Your task to perform on an android device: turn pop-ups off in chrome Image 0: 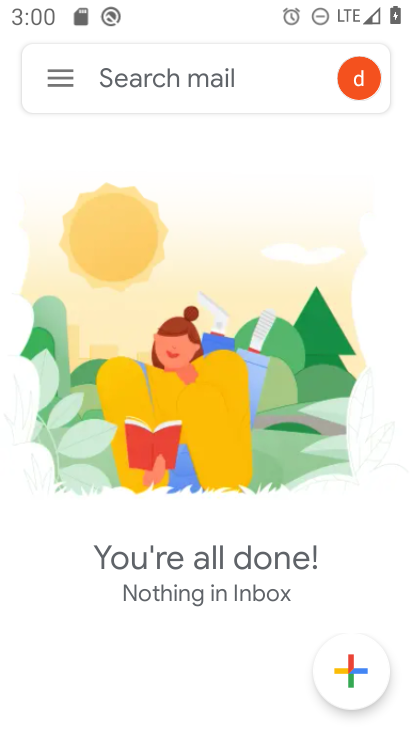
Step 0: press home button
Your task to perform on an android device: turn pop-ups off in chrome Image 1: 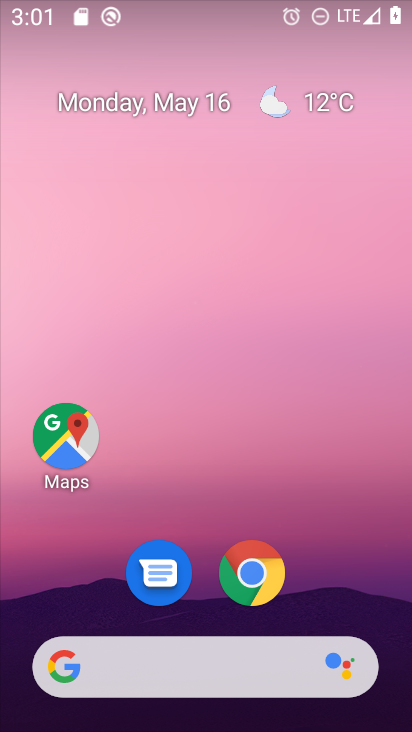
Step 1: click (273, 601)
Your task to perform on an android device: turn pop-ups off in chrome Image 2: 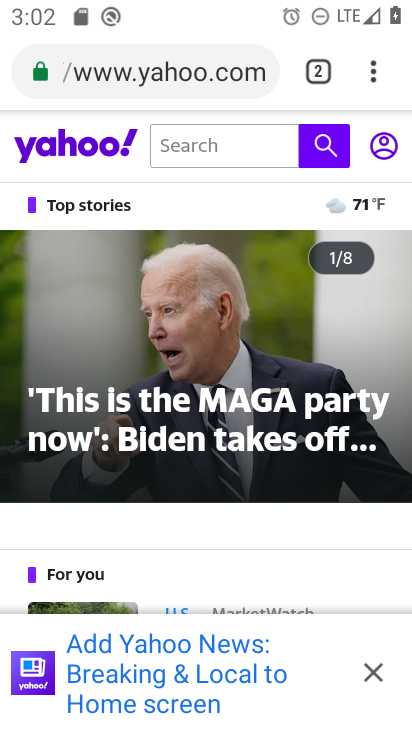
Step 2: drag from (377, 77) to (124, 565)
Your task to perform on an android device: turn pop-ups off in chrome Image 3: 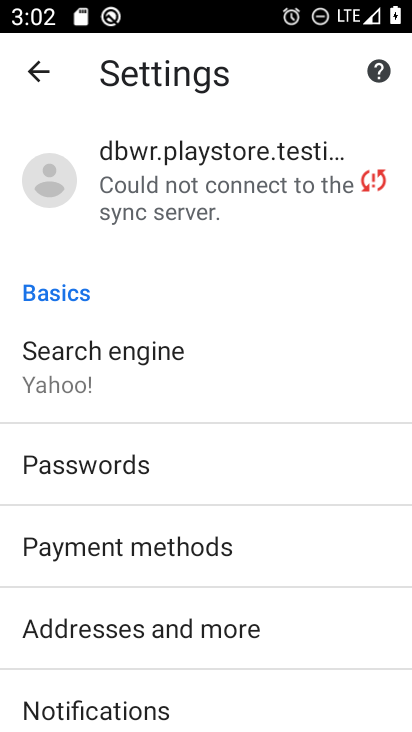
Step 3: drag from (77, 581) to (77, 184)
Your task to perform on an android device: turn pop-ups off in chrome Image 4: 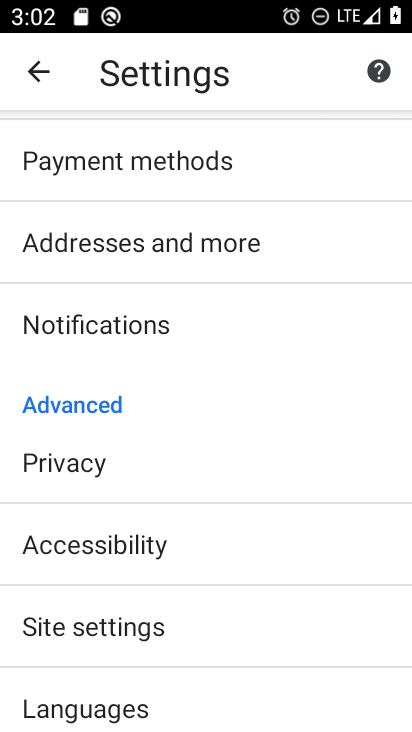
Step 4: drag from (106, 666) to (93, 578)
Your task to perform on an android device: turn pop-ups off in chrome Image 5: 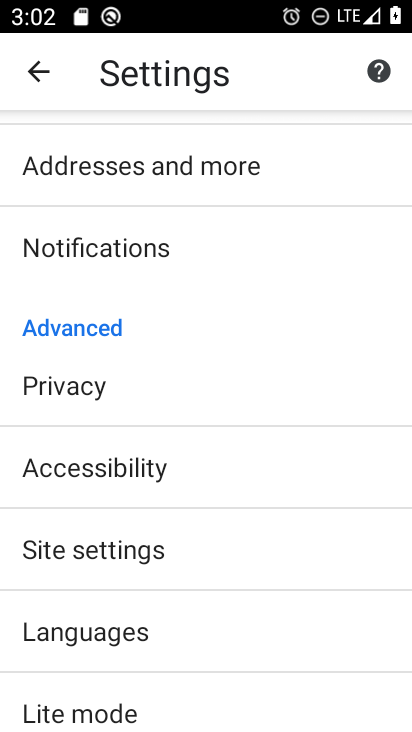
Step 5: click (106, 569)
Your task to perform on an android device: turn pop-ups off in chrome Image 6: 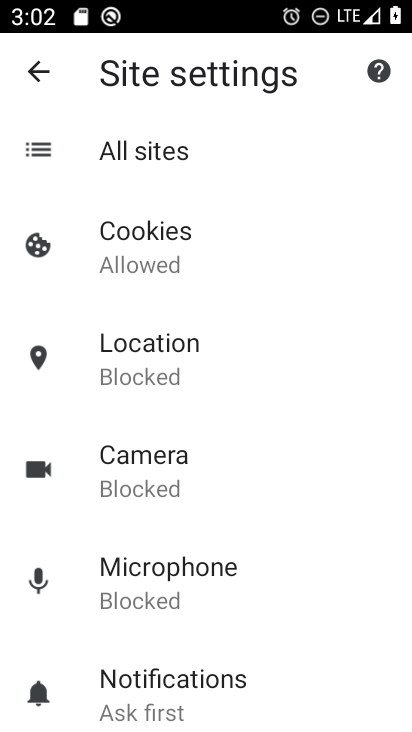
Step 6: drag from (154, 593) to (98, 91)
Your task to perform on an android device: turn pop-ups off in chrome Image 7: 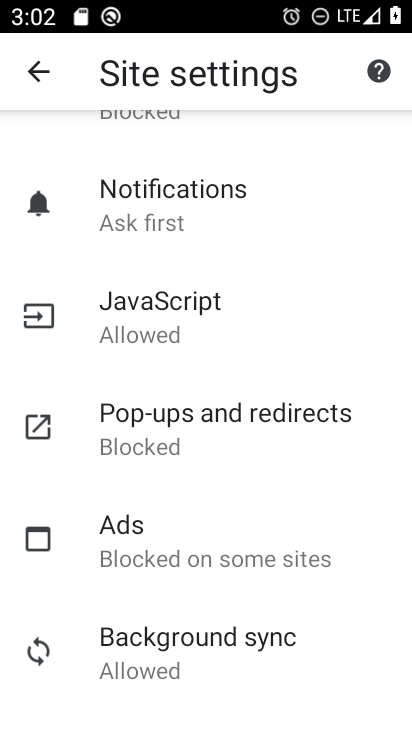
Step 7: click (216, 450)
Your task to perform on an android device: turn pop-ups off in chrome Image 8: 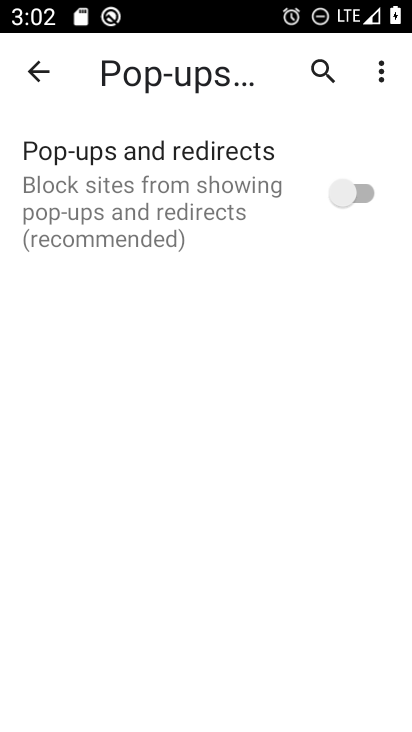
Step 8: task complete